Your task to perform on an android device: Open settings on Google Maps Image 0: 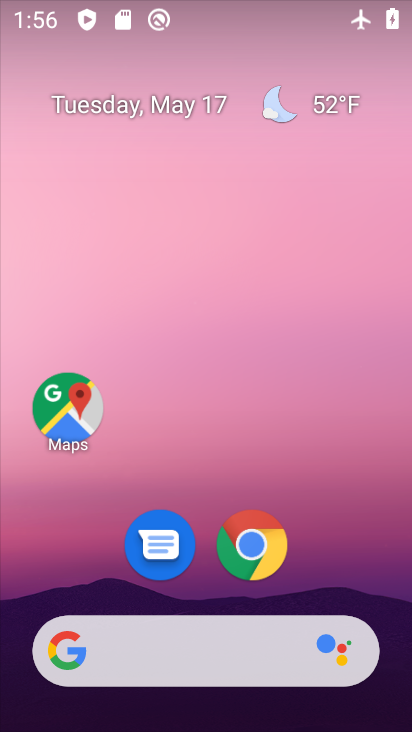
Step 0: drag from (356, 552) to (368, 115)
Your task to perform on an android device: Open settings on Google Maps Image 1: 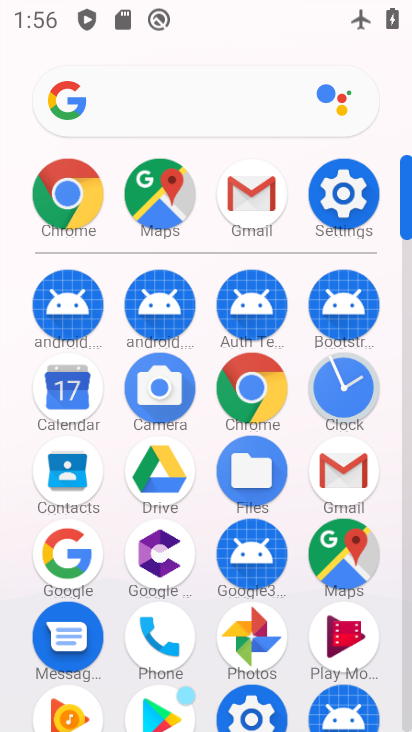
Step 1: click (347, 570)
Your task to perform on an android device: Open settings on Google Maps Image 2: 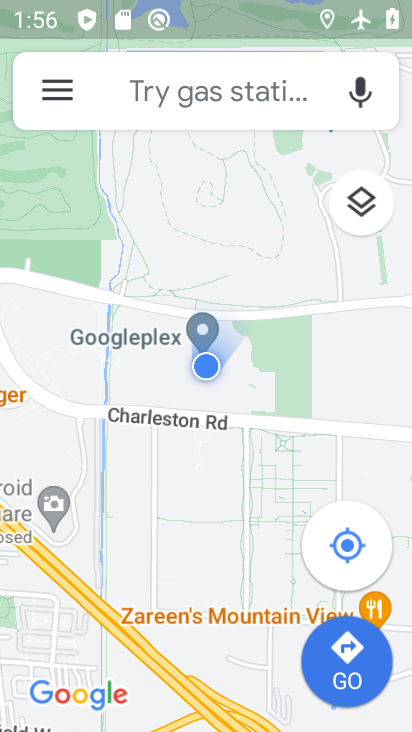
Step 2: click (61, 77)
Your task to perform on an android device: Open settings on Google Maps Image 3: 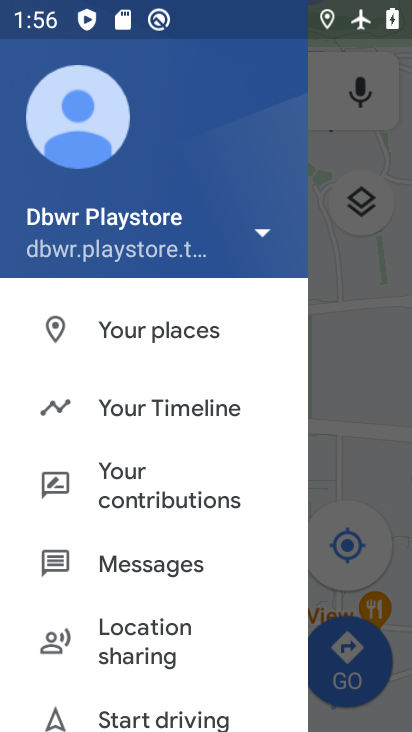
Step 3: drag from (249, 670) to (275, 536)
Your task to perform on an android device: Open settings on Google Maps Image 4: 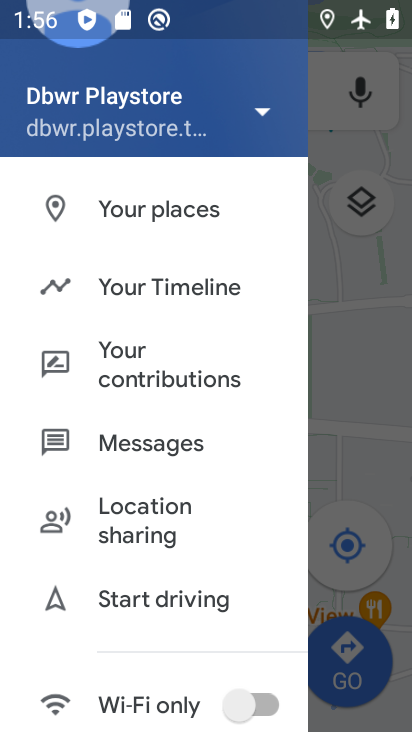
Step 4: drag from (259, 650) to (272, 483)
Your task to perform on an android device: Open settings on Google Maps Image 5: 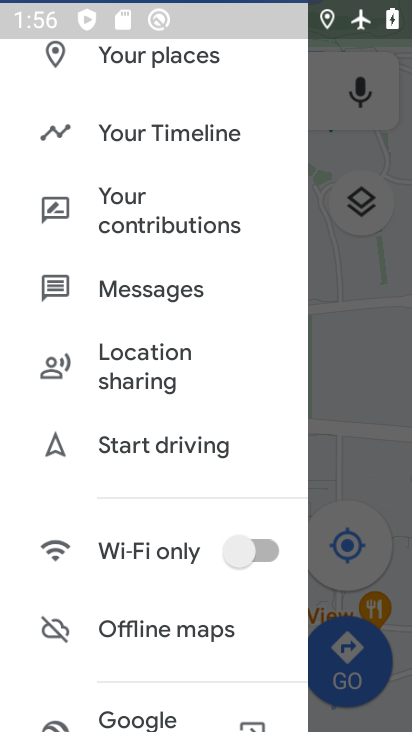
Step 5: drag from (241, 640) to (252, 468)
Your task to perform on an android device: Open settings on Google Maps Image 6: 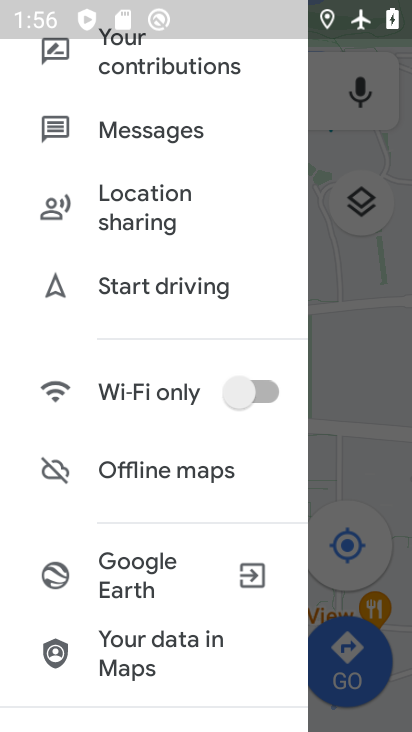
Step 6: drag from (209, 691) to (228, 484)
Your task to perform on an android device: Open settings on Google Maps Image 7: 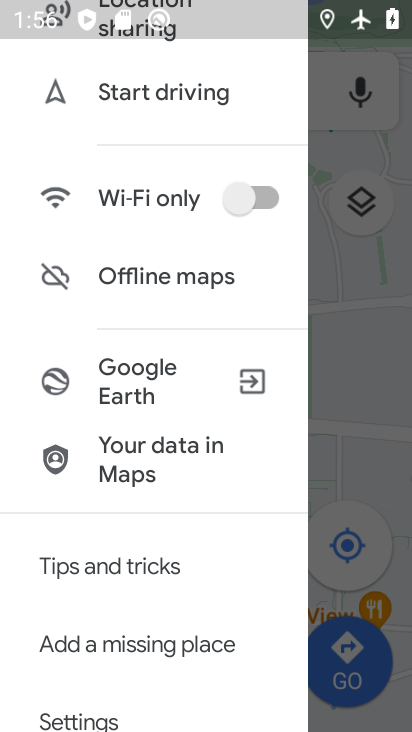
Step 7: drag from (256, 649) to (268, 531)
Your task to perform on an android device: Open settings on Google Maps Image 8: 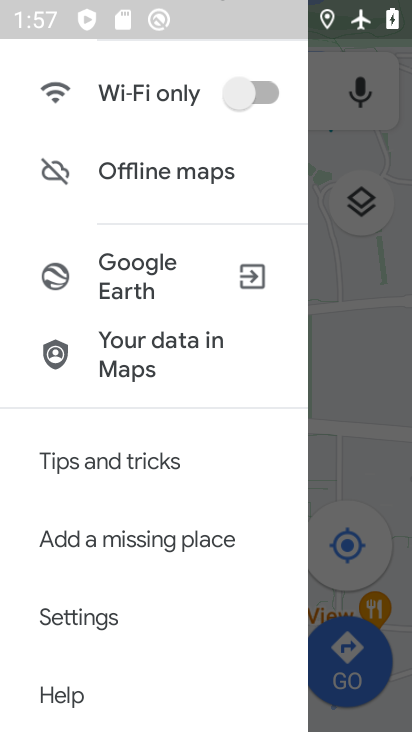
Step 8: drag from (212, 661) to (238, 518)
Your task to perform on an android device: Open settings on Google Maps Image 9: 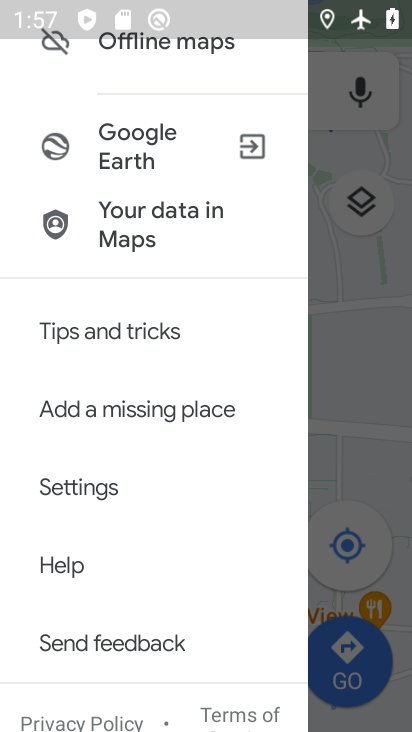
Step 9: drag from (256, 600) to (267, 458)
Your task to perform on an android device: Open settings on Google Maps Image 10: 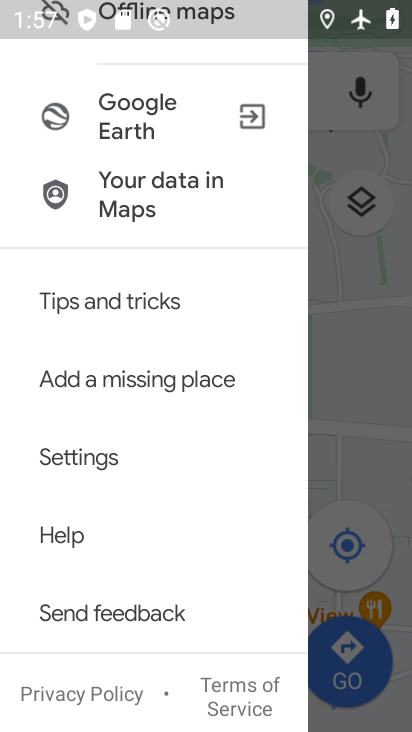
Step 10: click (115, 459)
Your task to perform on an android device: Open settings on Google Maps Image 11: 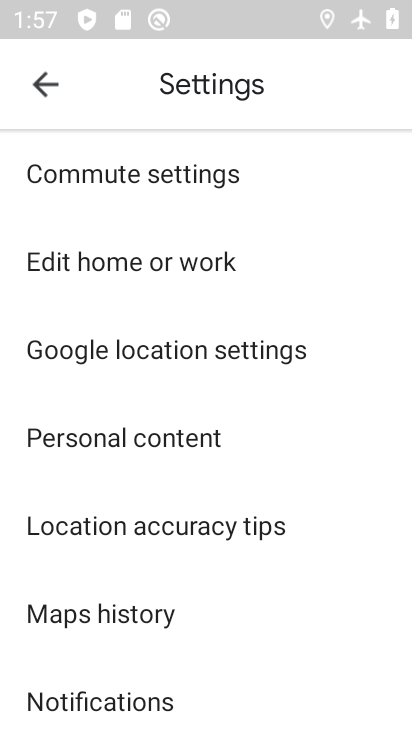
Step 11: task complete